Your task to perform on an android device: Find coffee shops on Maps Image 0: 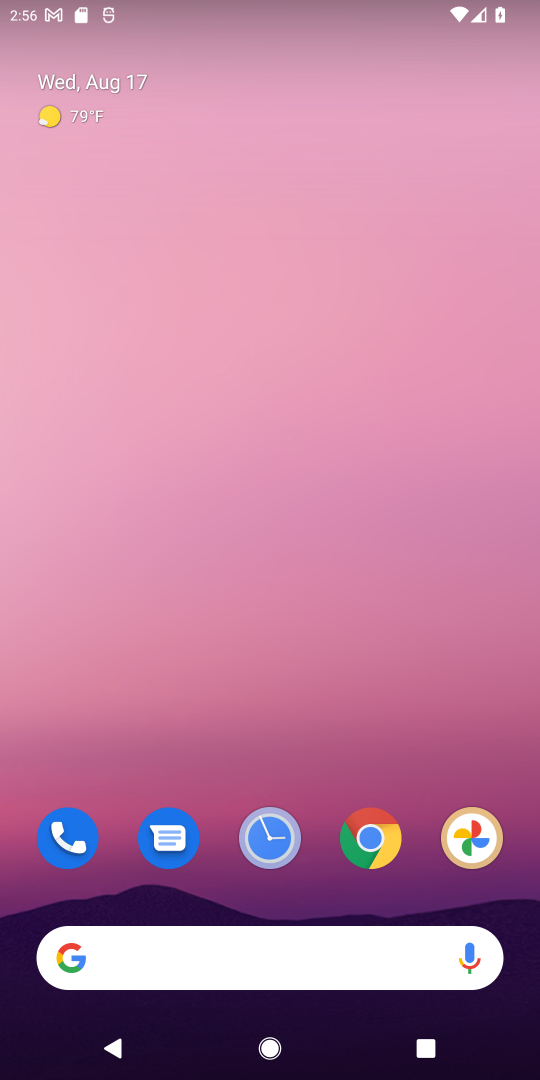
Step 0: drag from (216, 932) to (141, 463)
Your task to perform on an android device: Find coffee shops on Maps Image 1: 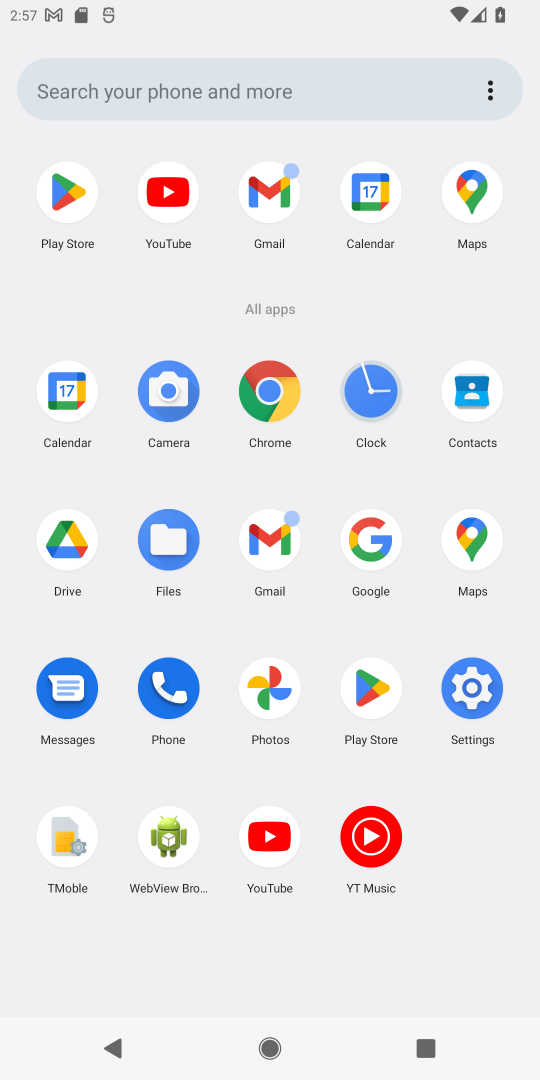
Step 1: click (465, 536)
Your task to perform on an android device: Find coffee shops on Maps Image 2: 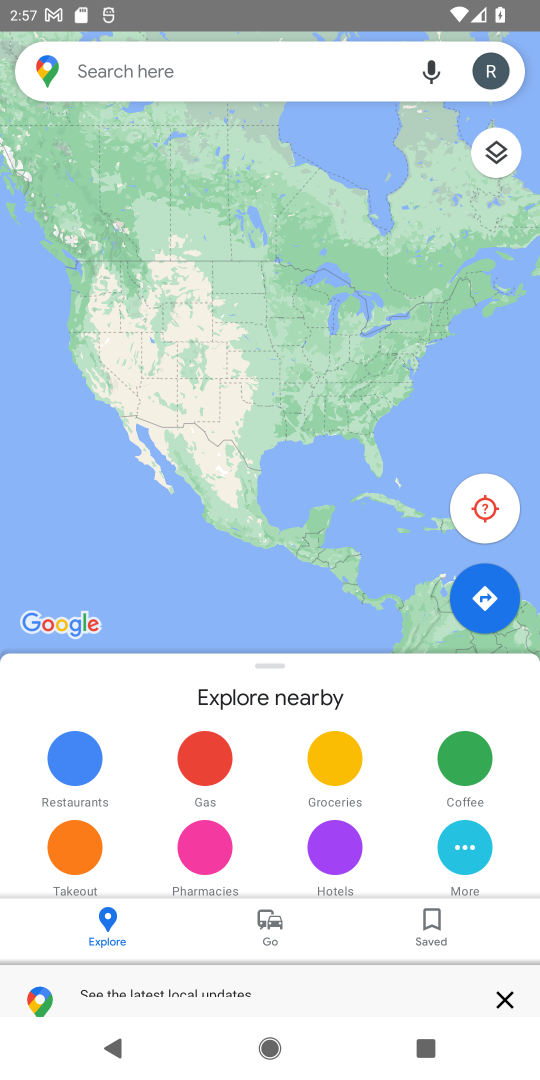
Step 2: click (190, 71)
Your task to perform on an android device: Find coffee shops on Maps Image 3: 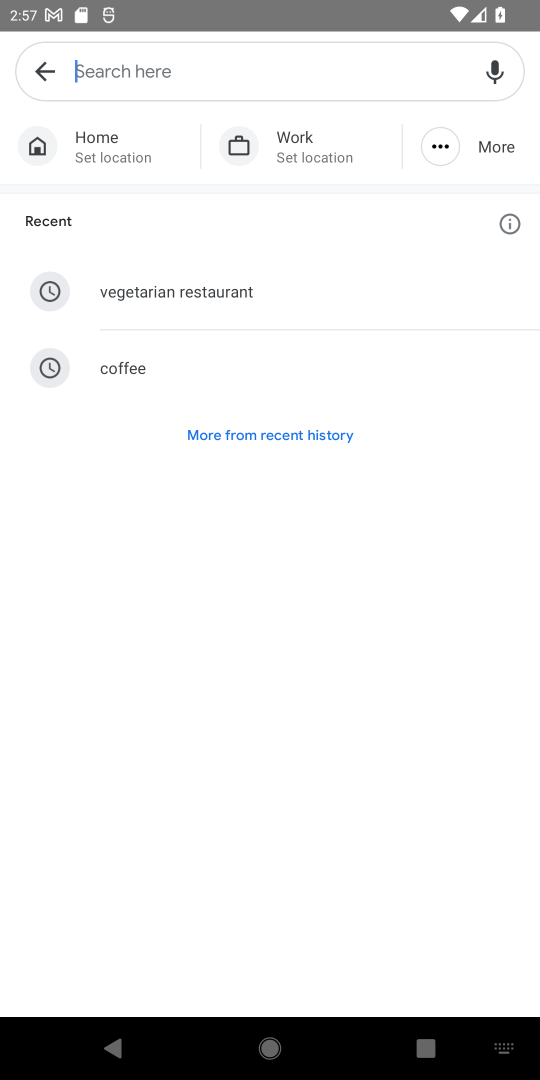
Step 3: click (120, 62)
Your task to perform on an android device: Find coffee shops on Maps Image 4: 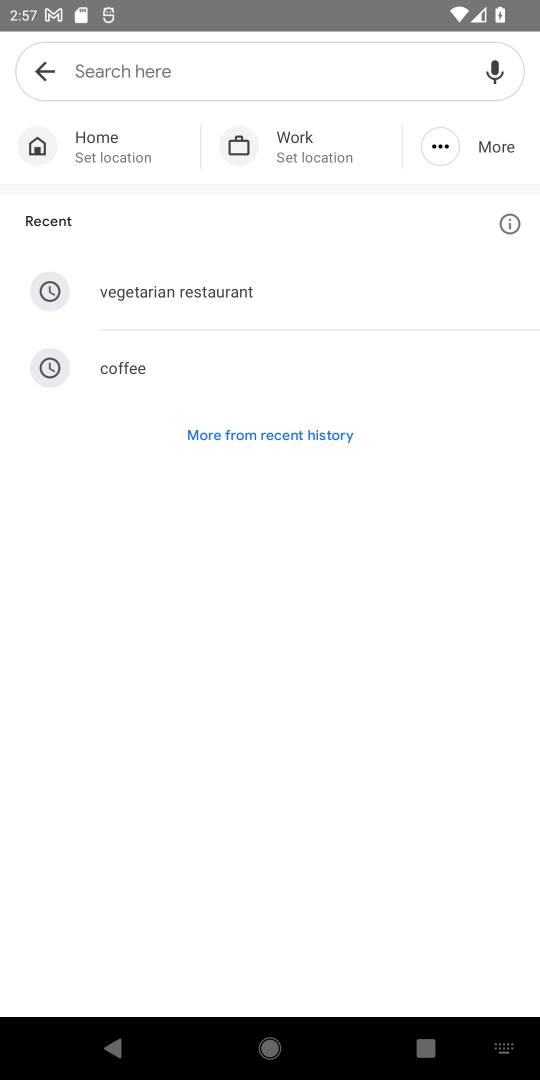
Step 4: click (186, 369)
Your task to perform on an android device: Find coffee shops on Maps Image 5: 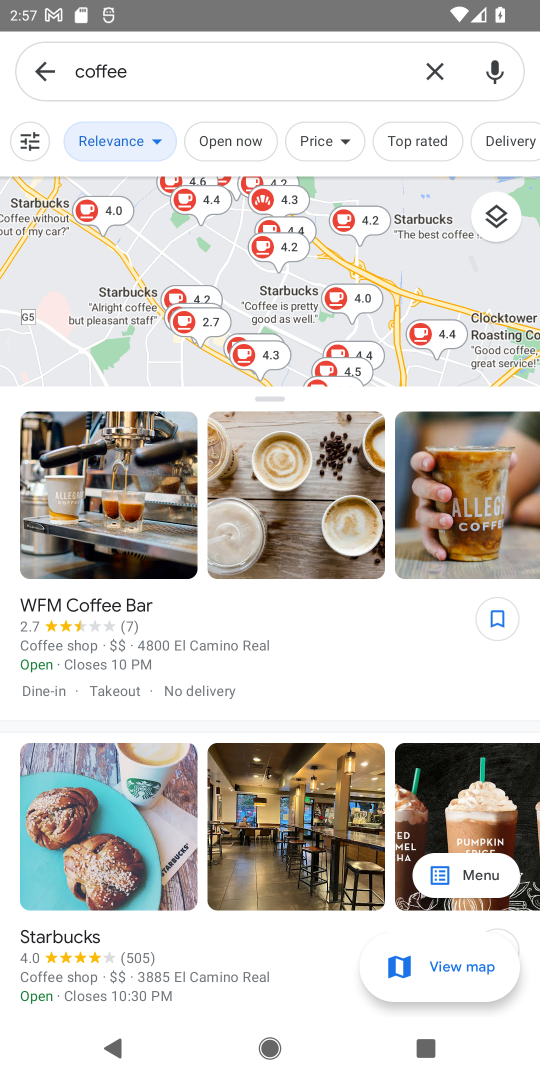
Step 5: task complete